Your task to perform on an android device: choose inbox layout in the gmail app Image 0: 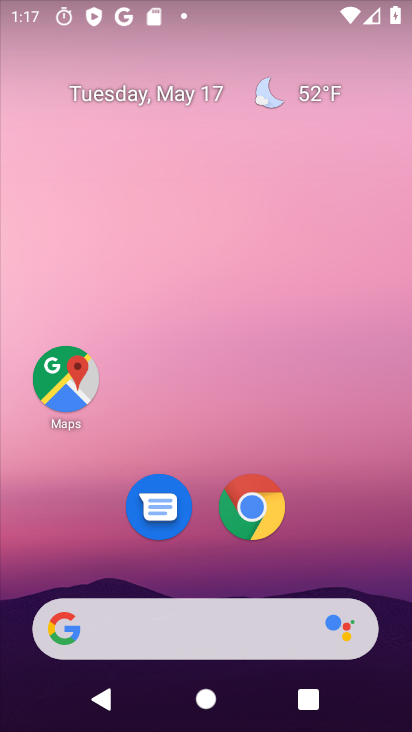
Step 0: drag from (195, 545) to (197, 43)
Your task to perform on an android device: choose inbox layout in the gmail app Image 1: 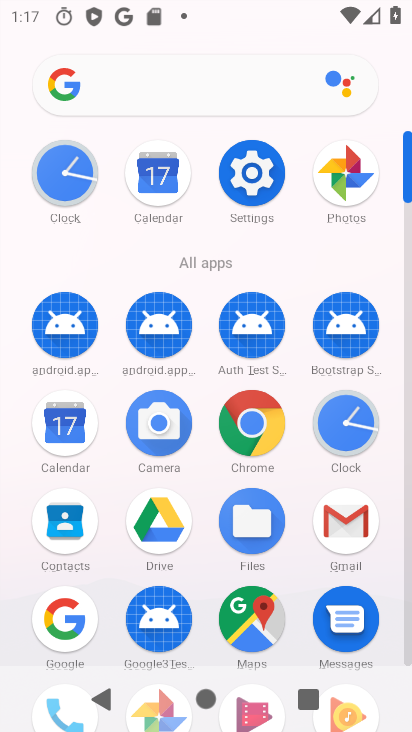
Step 1: click (343, 500)
Your task to perform on an android device: choose inbox layout in the gmail app Image 2: 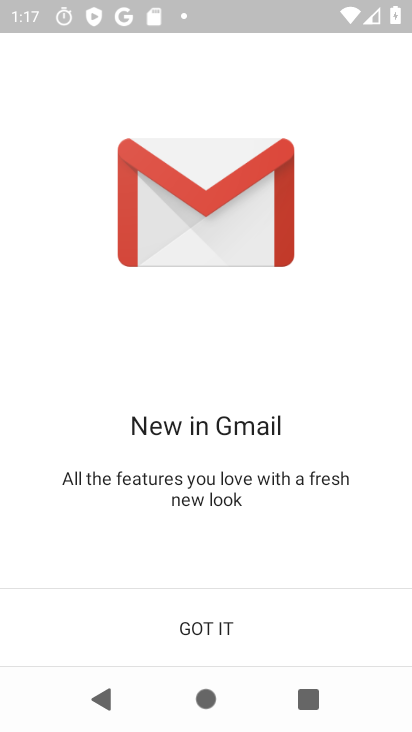
Step 2: click (224, 612)
Your task to perform on an android device: choose inbox layout in the gmail app Image 3: 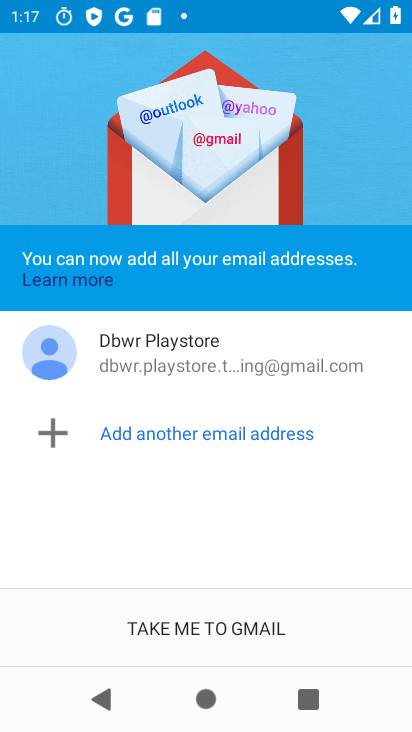
Step 3: click (217, 620)
Your task to perform on an android device: choose inbox layout in the gmail app Image 4: 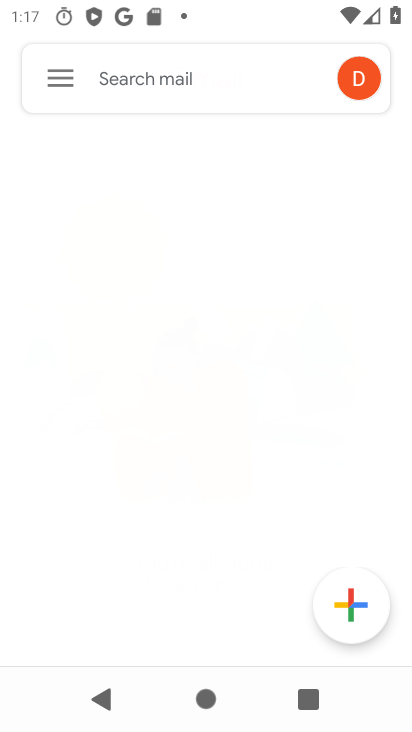
Step 4: click (48, 77)
Your task to perform on an android device: choose inbox layout in the gmail app Image 5: 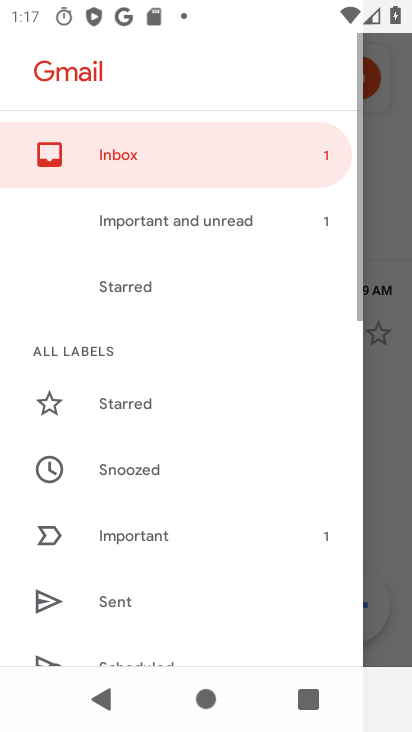
Step 5: drag from (128, 589) to (140, 114)
Your task to perform on an android device: choose inbox layout in the gmail app Image 6: 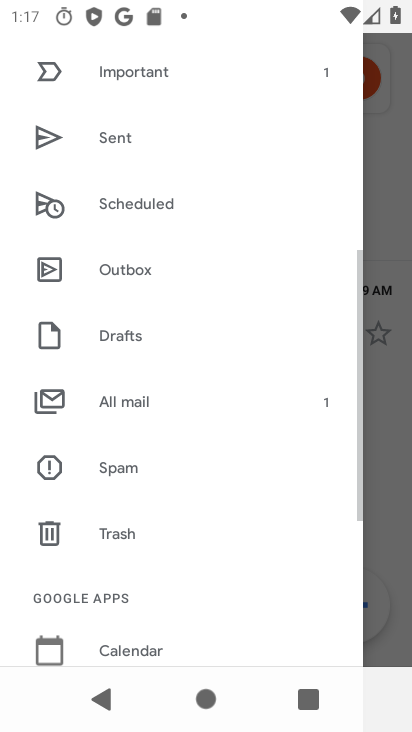
Step 6: drag from (129, 631) to (182, 240)
Your task to perform on an android device: choose inbox layout in the gmail app Image 7: 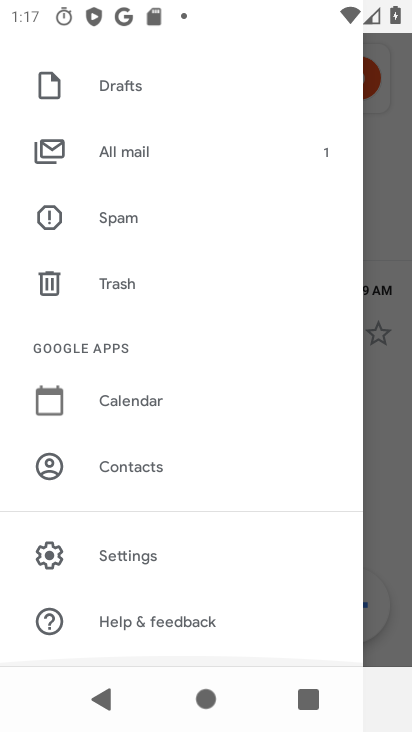
Step 7: click (115, 550)
Your task to perform on an android device: choose inbox layout in the gmail app Image 8: 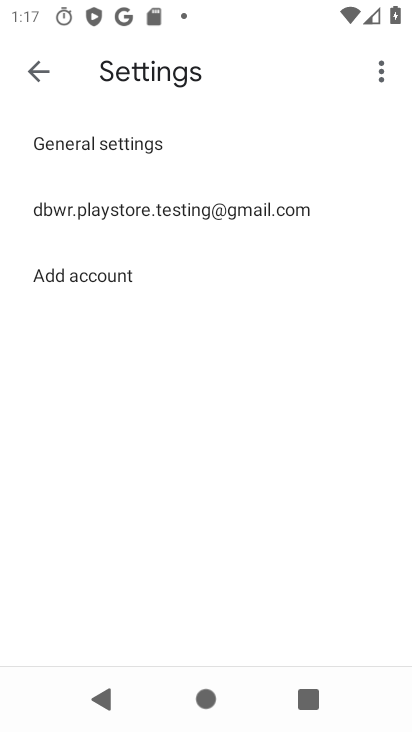
Step 8: click (109, 236)
Your task to perform on an android device: choose inbox layout in the gmail app Image 9: 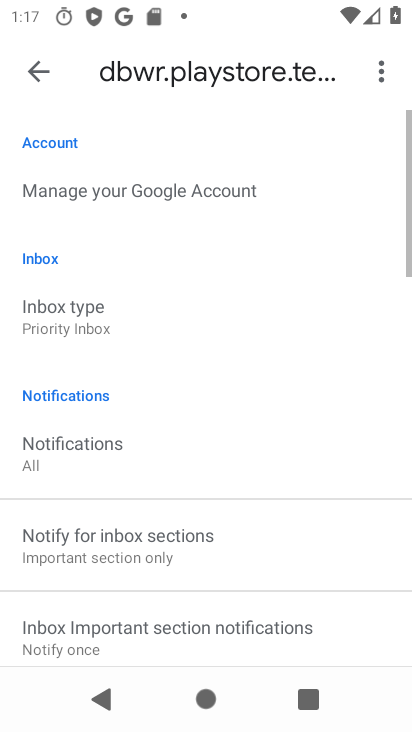
Step 9: drag from (97, 317) to (100, 237)
Your task to perform on an android device: choose inbox layout in the gmail app Image 10: 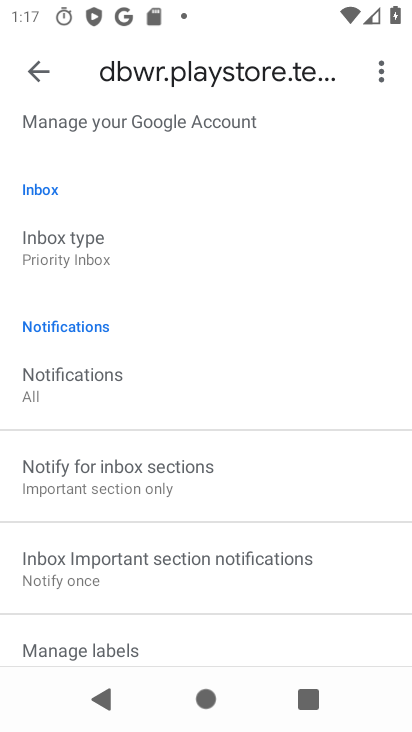
Step 10: click (102, 238)
Your task to perform on an android device: choose inbox layout in the gmail app Image 11: 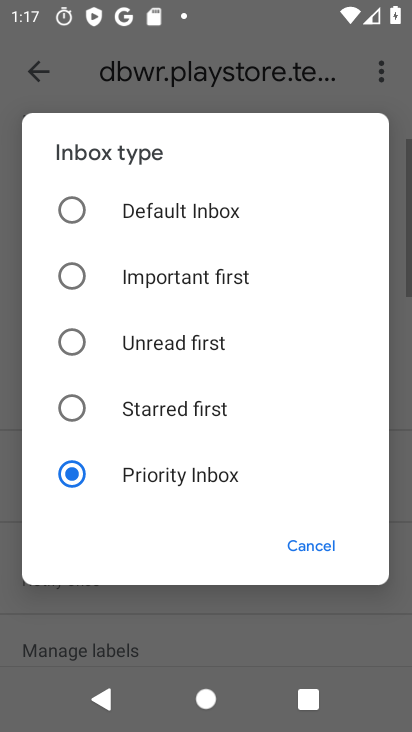
Step 11: click (84, 207)
Your task to perform on an android device: choose inbox layout in the gmail app Image 12: 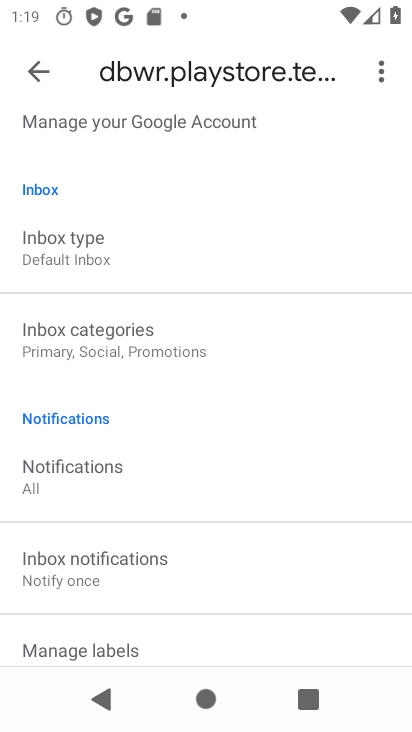
Step 12: task complete